Your task to perform on an android device: Open CNN.com Image 0: 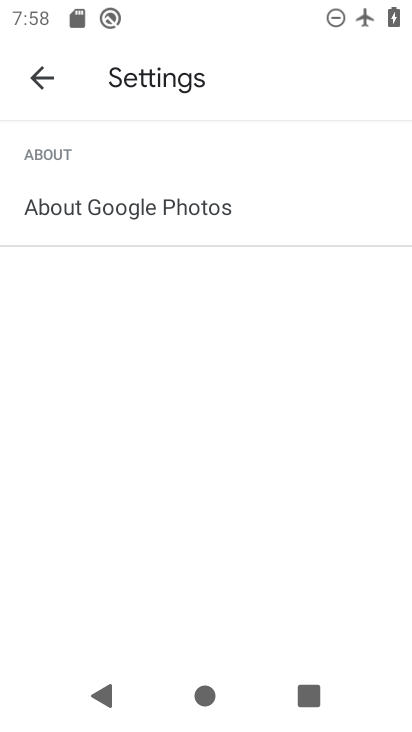
Step 0: press home button
Your task to perform on an android device: Open CNN.com Image 1: 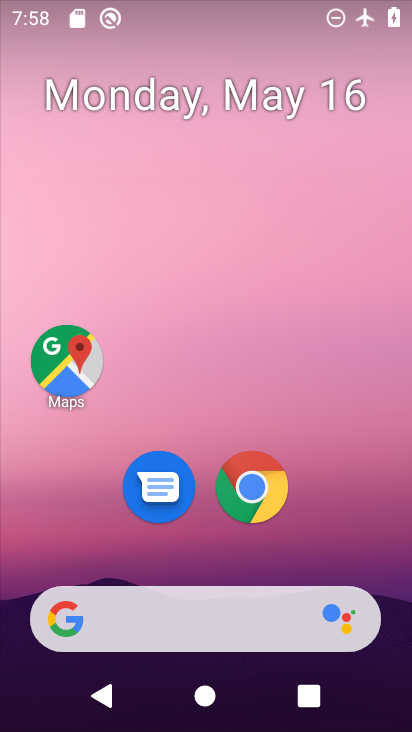
Step 1: click (274, 620)
Your task to perform on an android device: Open CNN.com Image 2: 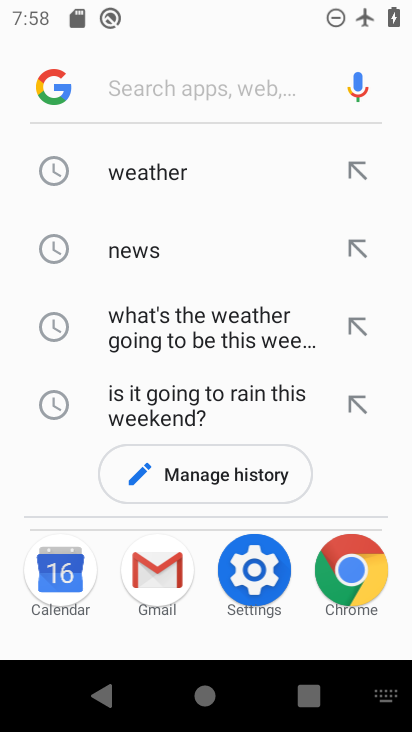
Step 2: type "cnn.com"
Your task to perform on an android device: Open CNN.com Image 3: 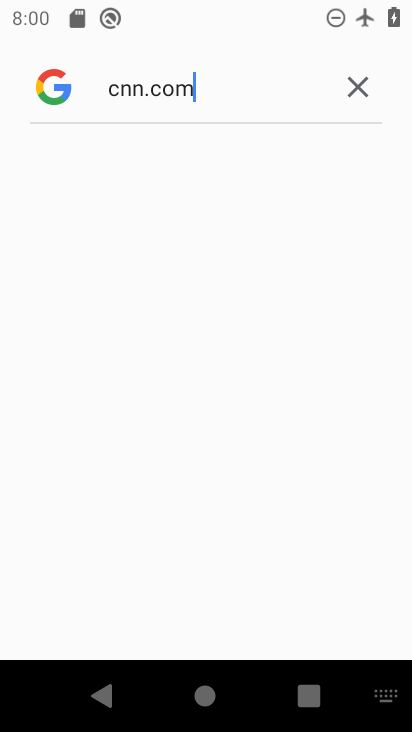
Step 3: task complete